Your task to perform on an android device: Open Google Image 0: 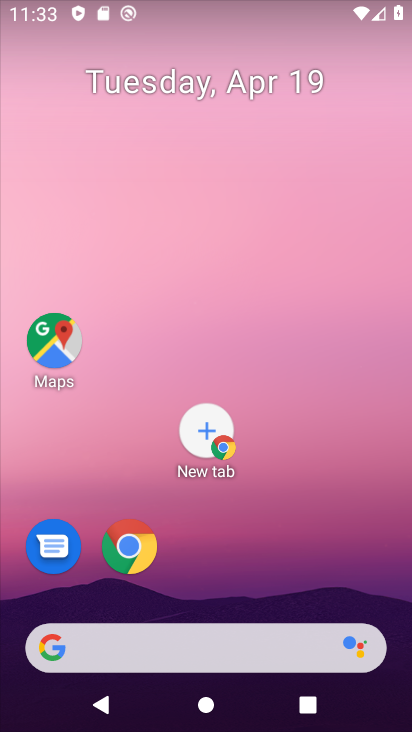
Step 0: click (188, 639)
Your task to perform on an android device: Open Google Image 1: 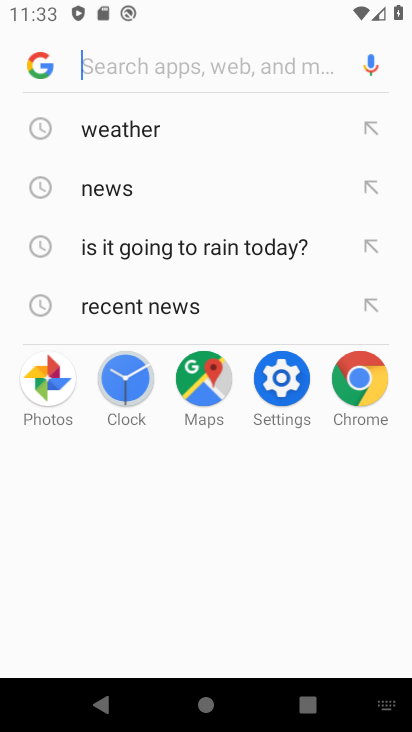
Step 1: task complete